Your task to perform on an android device: turn pop-ups on in chrome Image 0: 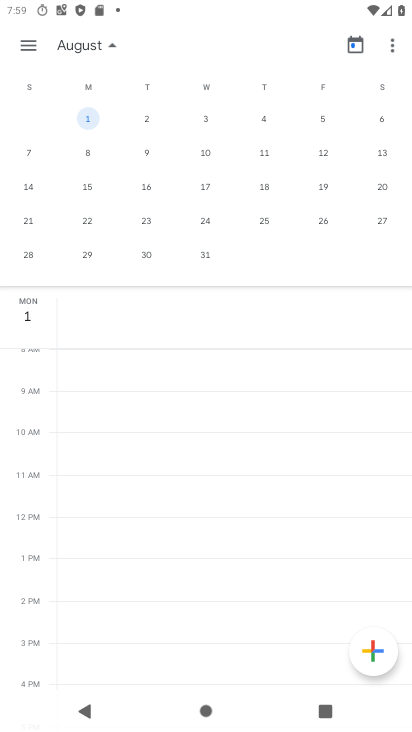
Step 0: press home button
Your task to perform on an android device: turn pop-ups on in chrome Image 1: 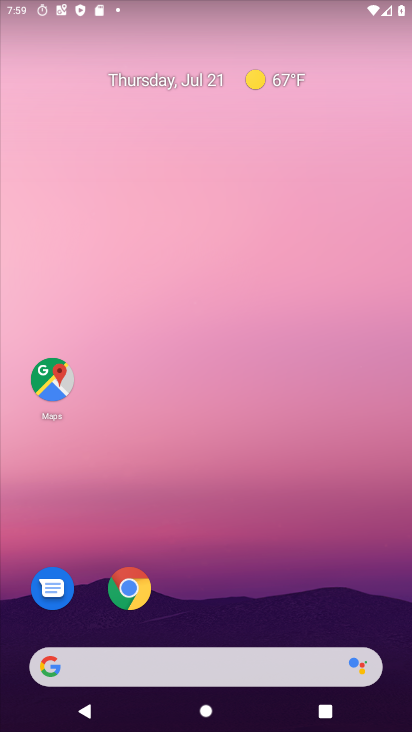
Step 1: click (127, 585)
Your task to perform on an android device: turn pop-ups on in chrome Image 2: 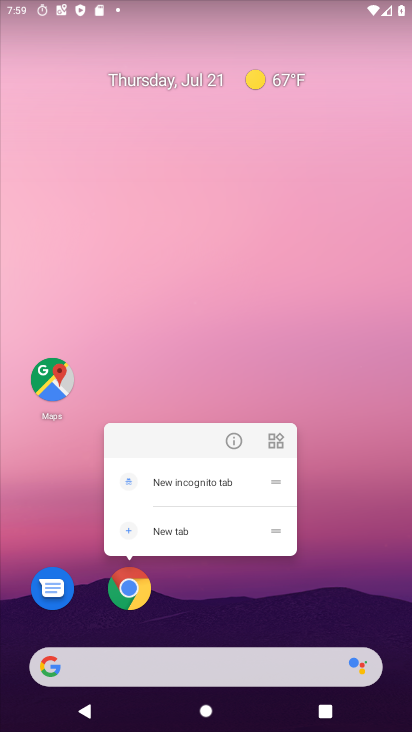
Step 2: click (118, 573)
Your task to perform on an android device: turn pop-ups on in chrome Image 3: 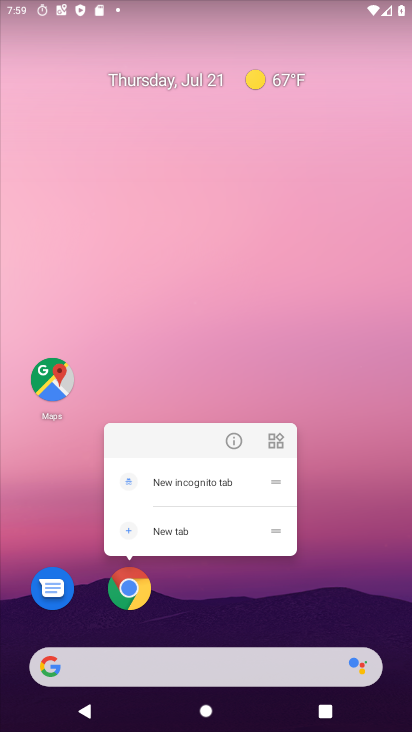
Step 3: click (141, 595)
Your task to perform on an android device: turn pop-ups on in chrome Image 4: 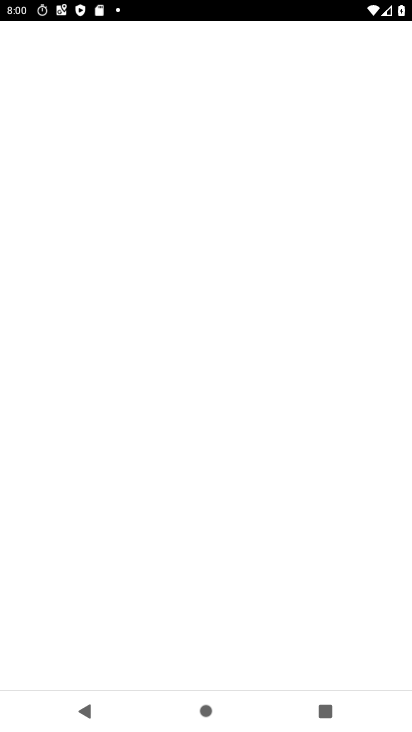
Step 4: click (130, 592)
Your task to perform on an android device: turn pop-ups on in chrome Image 5: 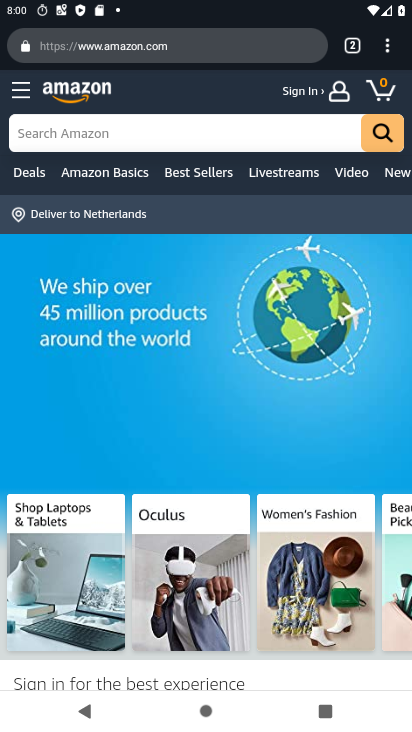
Step 5: click (381, 51)
Your task to perform on an android device: turn pop-ups on in chrome Image 6: 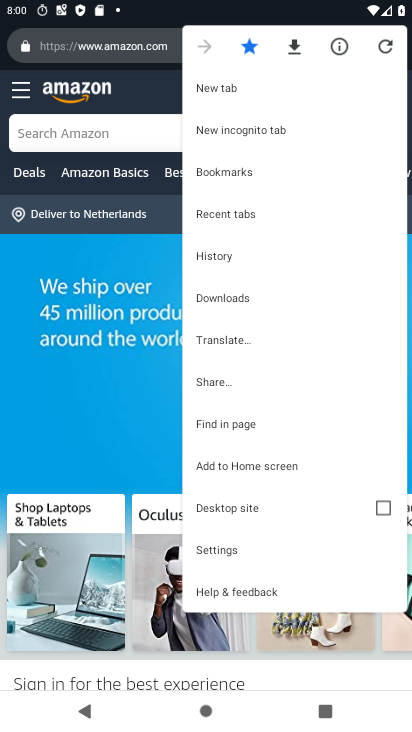
Step 6: click (218, 556)
Your task to perform on an android device: turn pop-ups on in chrome Image 7: 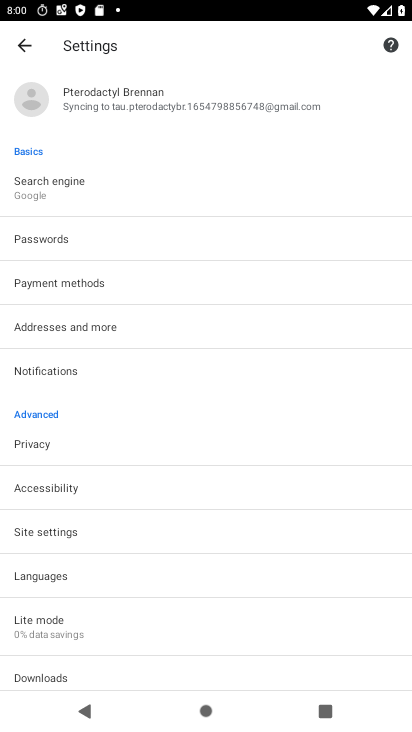
Step 7: click (28, 536)
Your task to perform on an android device: turn pop-ups on in chrome Image 8: 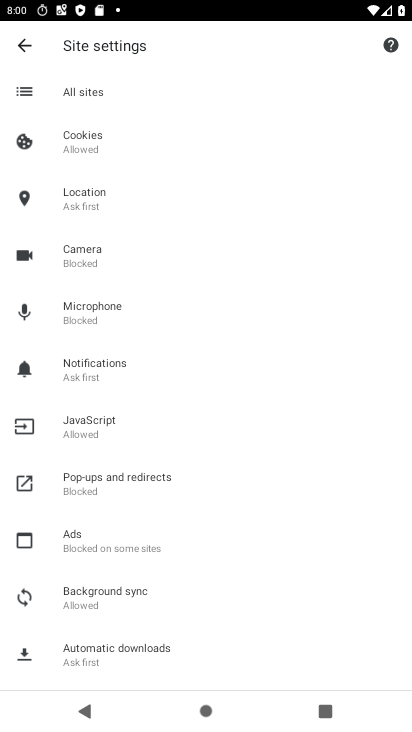
Step 8: click (85, 494)
Your task to perform on an android device: turn pop-ups on in chrome Image 9: 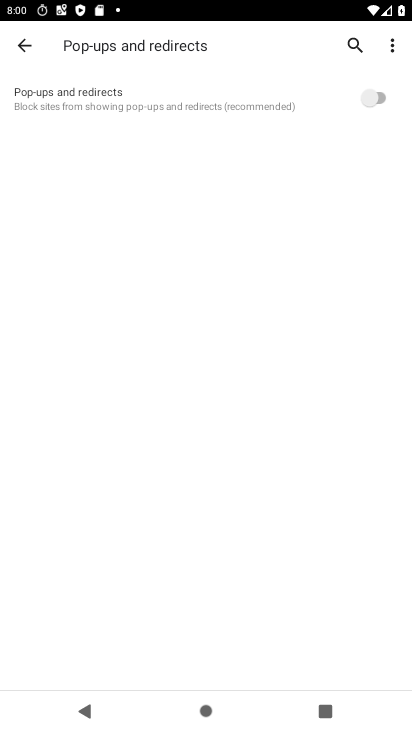
Step 9: click (380, 97)
Your task to perform on an android device: turn pop-ups on in chrome Image 10: 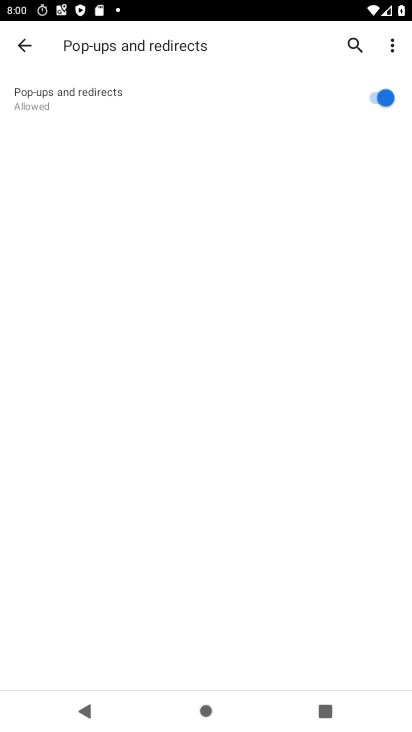
Step 10: task complete